Your task to perform on an android device: What's on my calendar tomorrow? Image 0: 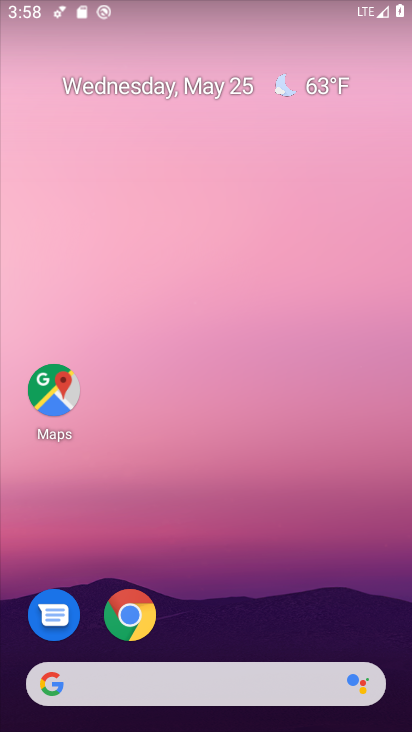
Step 0: click (185, 81)
Your task to perform on an android device: What's on my calendar tomorrow? Image 1: 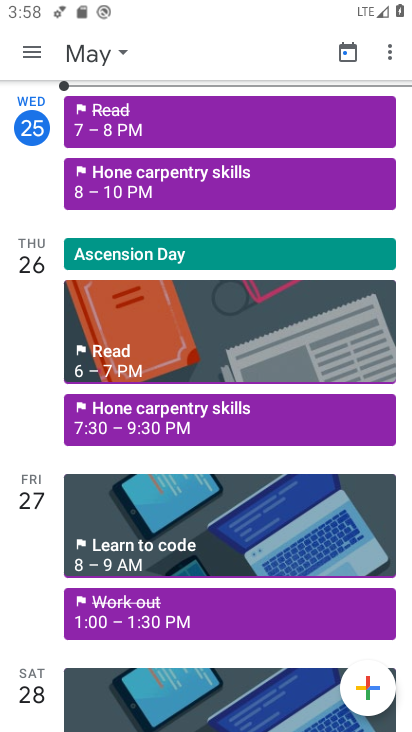
Step 1: task complete